Your task to perform on an android device: Go to Android settings Image 0: 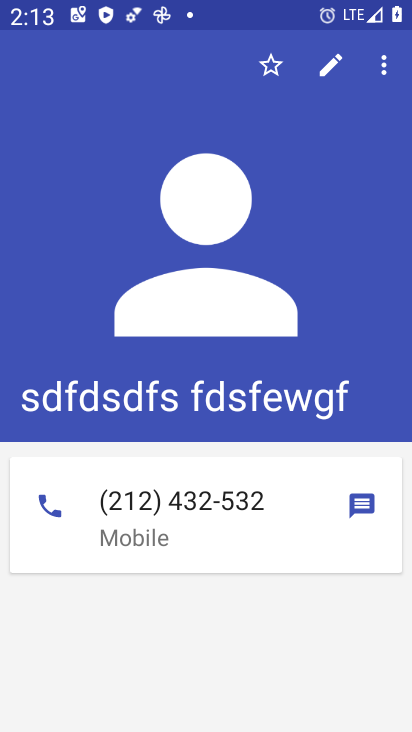
Step 0: press home button
Your task to perform on an android device: Go to Android settings Image 1: 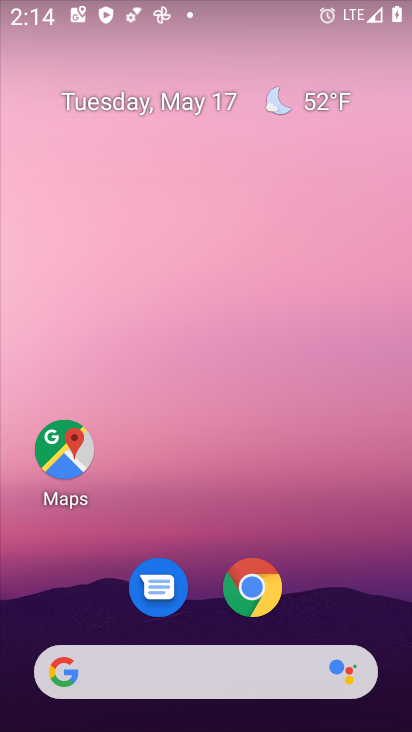
Step 1: drag from (372, 571) to (255, 78)
Your task to perform on an android device: Go to Android settings Image 2: 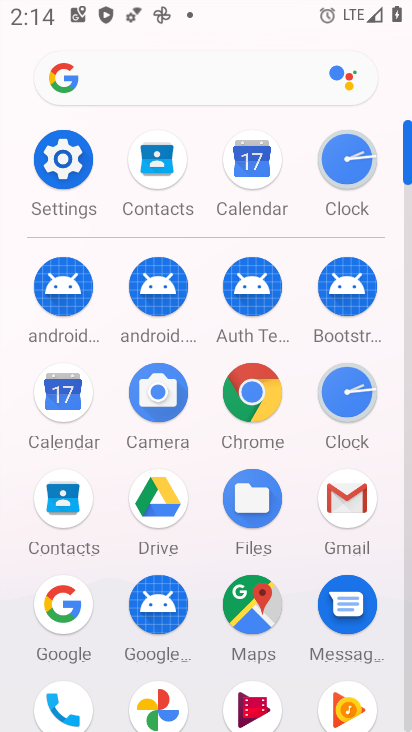
Step 2: click (81, 198)
Your task to perform on an android device: Go to Android settings Image 3: 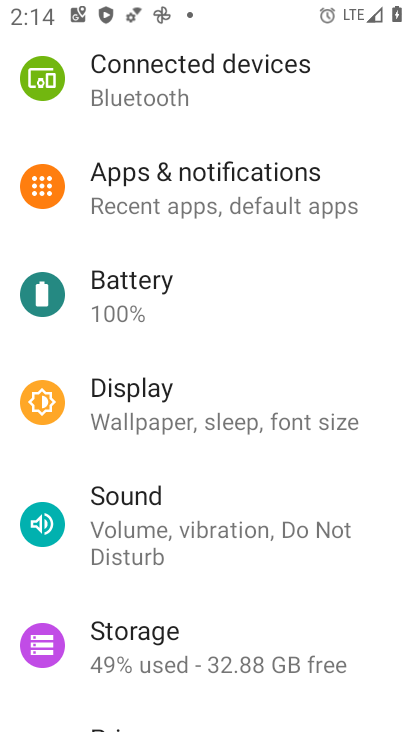
Step 3: task complete